Your task to perform on an android device: Go to sound settings Image 0: 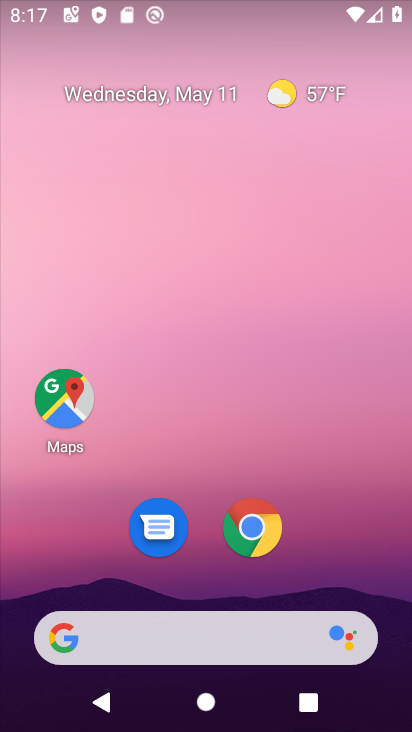
Step 0: drag from (351, 577) to (280, 7)
Your task to perform on an android device: Go to sound settings Image 1: 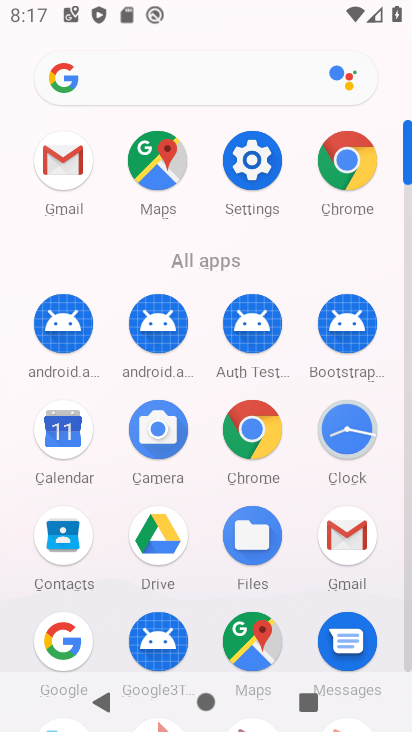
Step 1: click (260, 161)
Your task to perform on an android device: Go to sound settings Image 2: 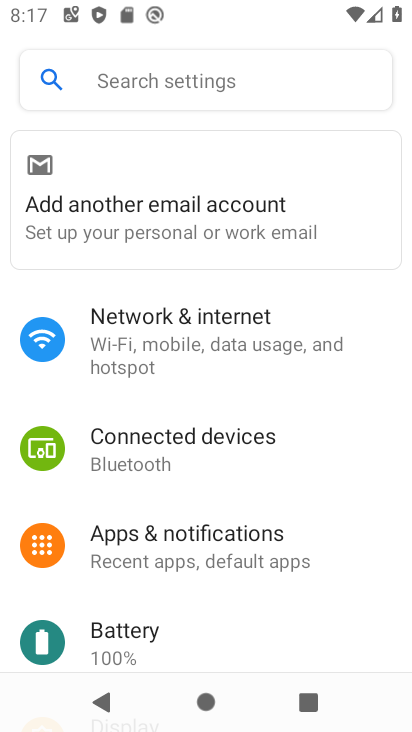
Step 2: drag from (313, 586) to (310, 213)
Your task to perform on an android device: Go to sound settings Image 3: 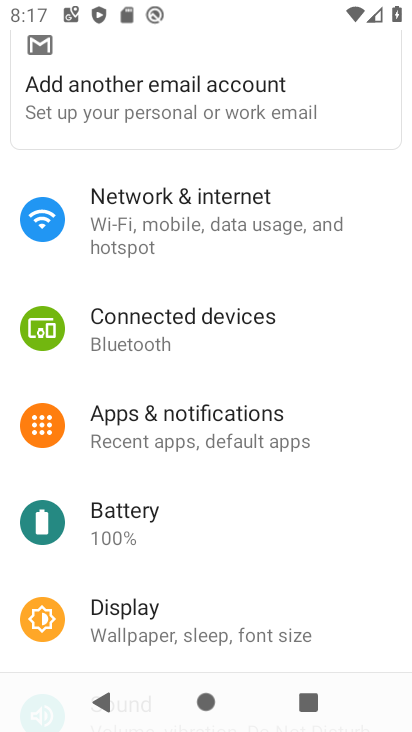
Step 3: drag from (259, 583) to (246, 171)
Your task to perform on an android device: Go to sound settings Image 4: 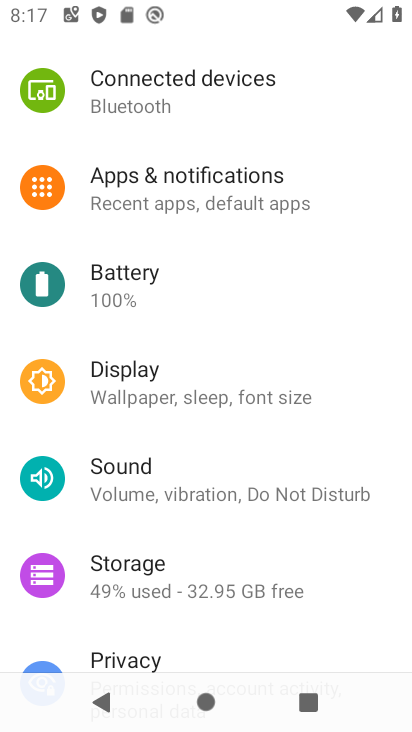
Step 4: click (119, 477)
Your task to perform on an android device: Go to sound settings Image 5: 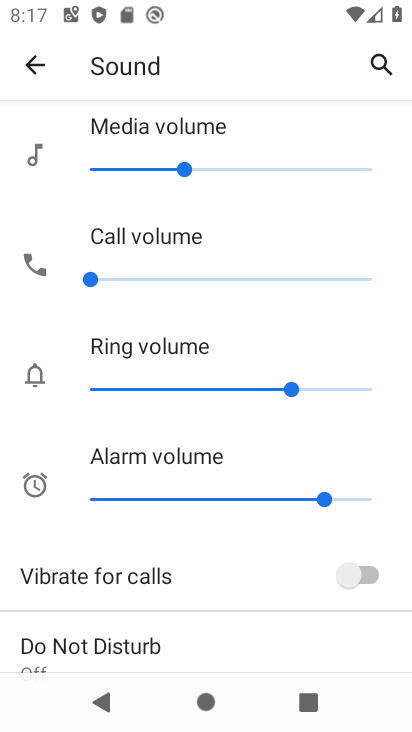
Step 5: task complete